Your task to perform on an android device: turn off location Image 0: 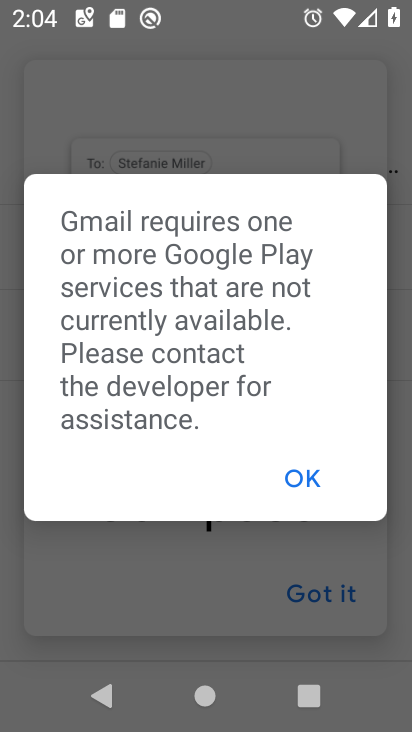
Step 0: press home button
Your task to perform on an android device: turn off location Image 1: 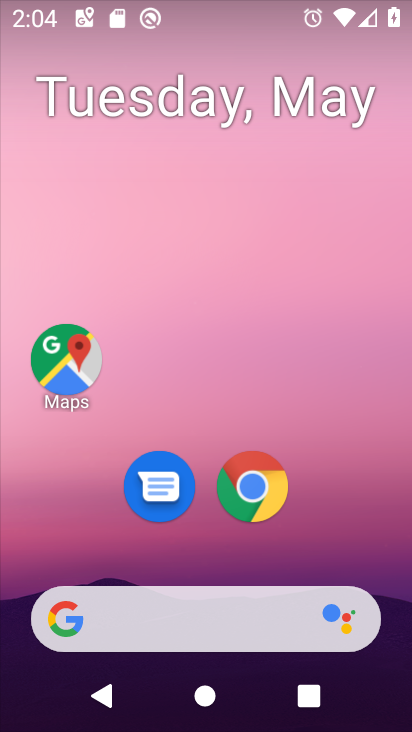
Step 1: drag from (52, 195) to (278, 107)
Your task to perform on an android device: turn off location Image 2: 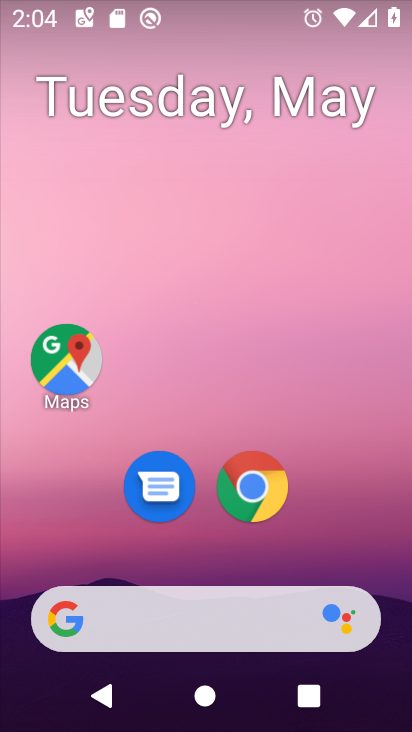
Step 2: drag from (15, 596) to (245, 116)
Your task to perform on an android device: turn off location Image 3: 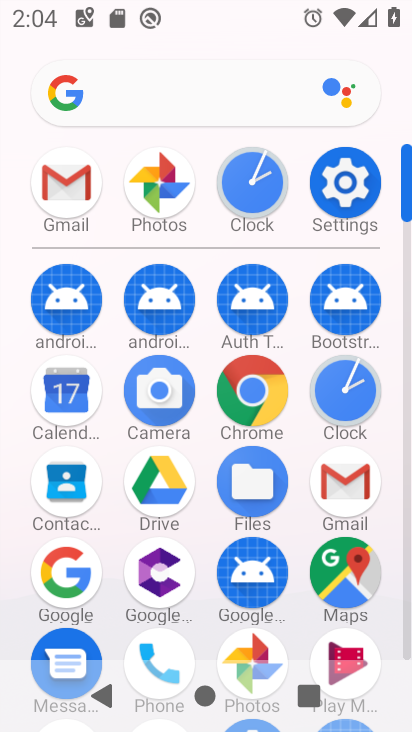
Step 3: click (357, 187)
Your task to perform on an android device: turn off location Image 4: 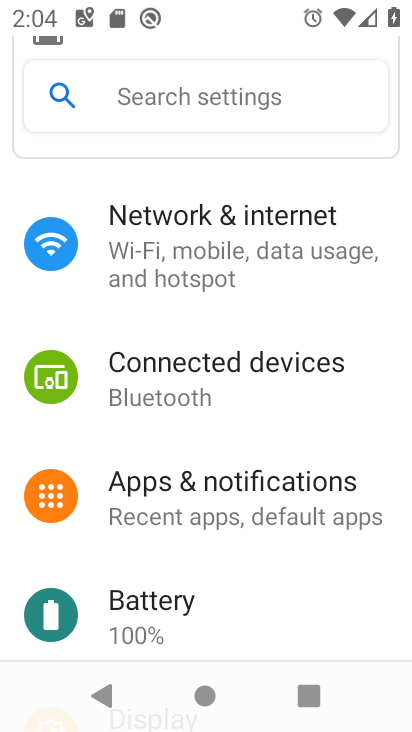
Step 4: drag from (18, 592) to (205, 178)
Your task to perform on an android device: turn off location Image 5: 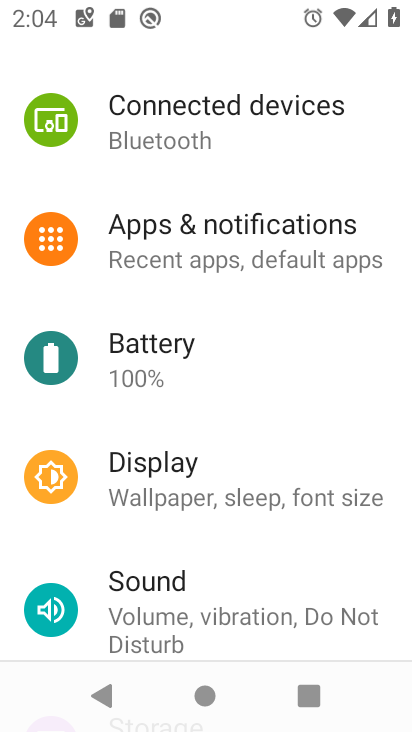
Step 5: drag from (53, 440) to (198, 237)
Your task to perform on an android device: turn off location Image 6: 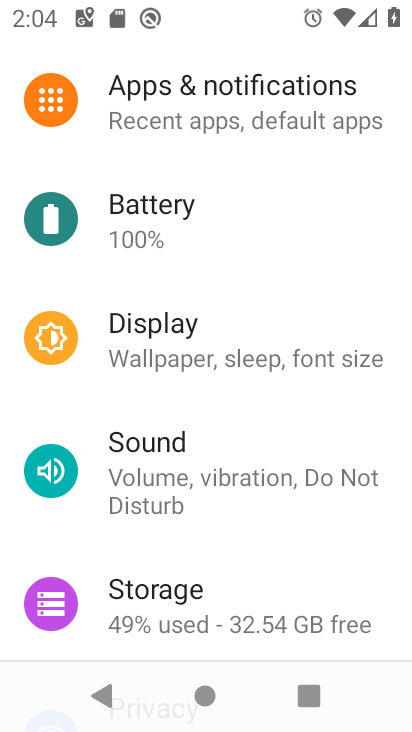
Step 6: drag from (25, 442) to (245, 166)
Your task to perform on an android device: turn off location Image 7: 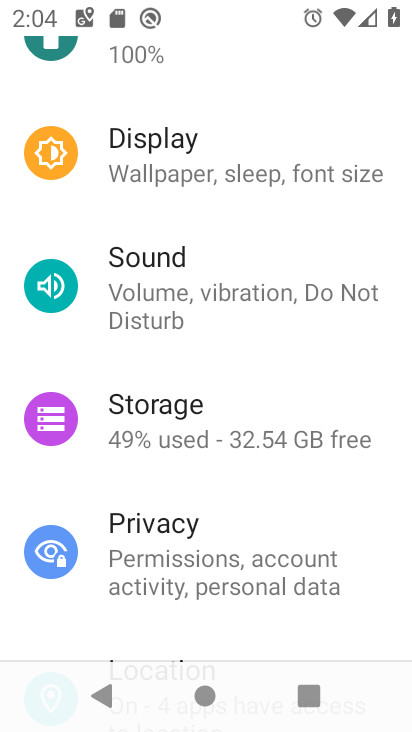
Step 7: drag from (0, 549) to (276, 254)
Your task to perform on an android device: turn off location Image 8: 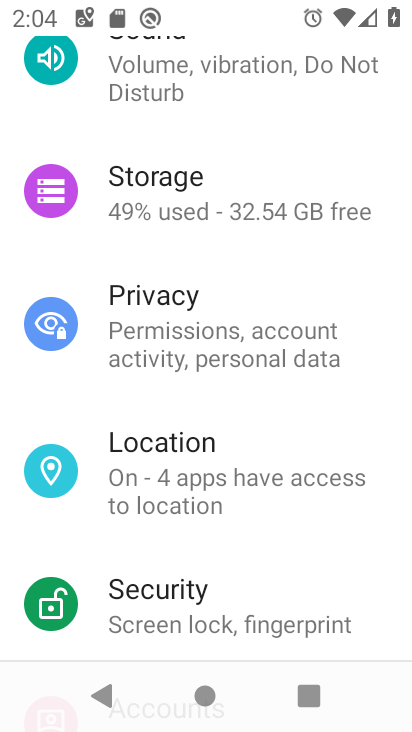
Step 8: click (221, 445)
Your task to perform on an android device: turn off location Image 9: 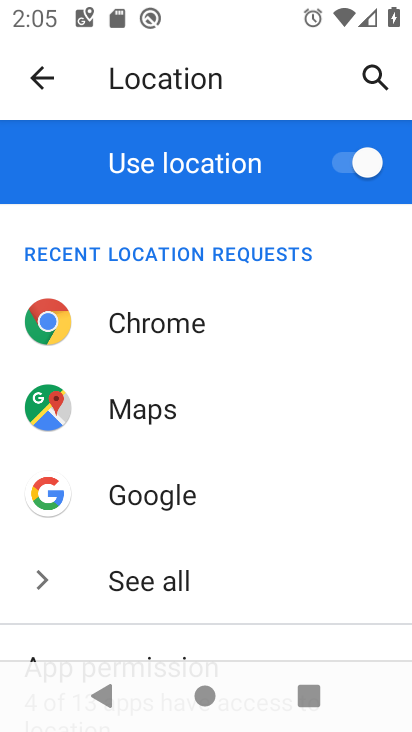
Step 9: click (364, 159)
Your task to perform on an android device: turn off location Image 10: 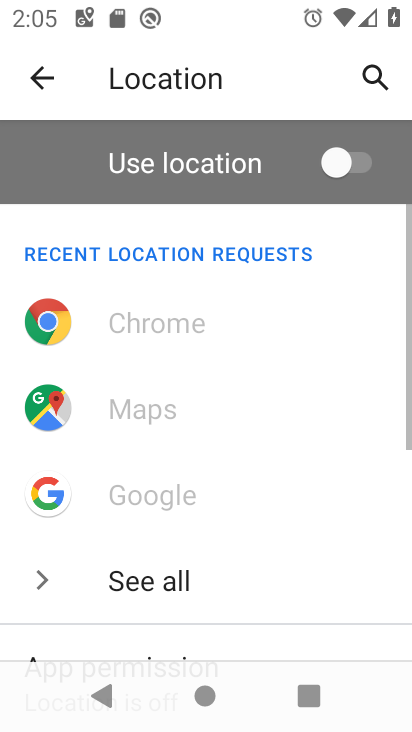
Step 10: task complete